Your task to perform on an android device: read, delete, or share a saved page in the chrome app Image 0: 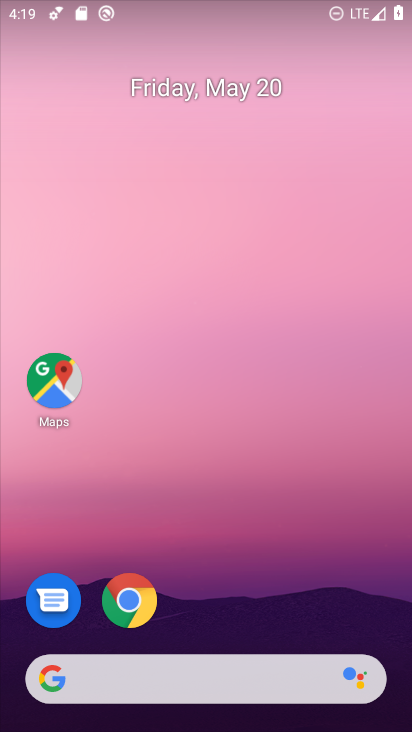
Step 0: click (126, 601)
Your task to perform on an android device: read, delete, or share a saved page in the chrome app Image 1: 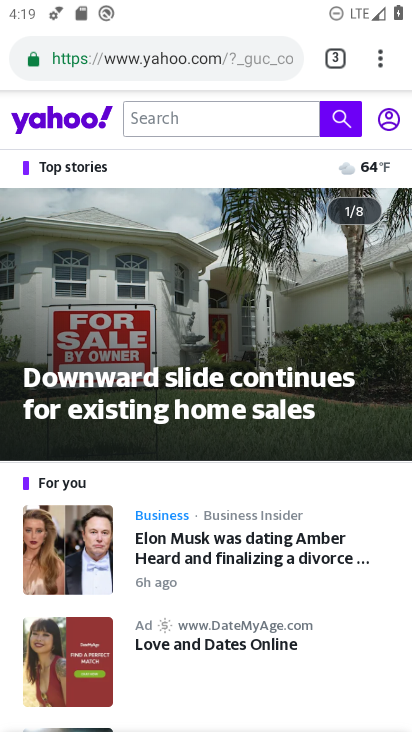
Step 1: drag from (374, 56) to (179, 393)
Your task to perform on an android device: read, delete, or share a saved page in the chrome app Image 2: 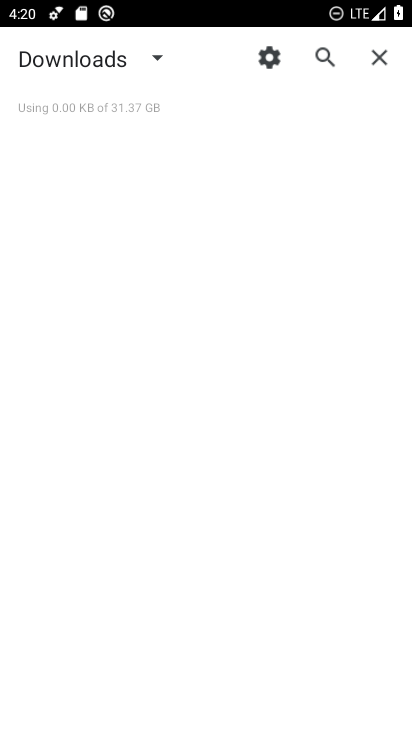
Step 2: click (150, 57)
Your task to perform on an android device: read, delete, or share a saved page in the chrome app Image 3: 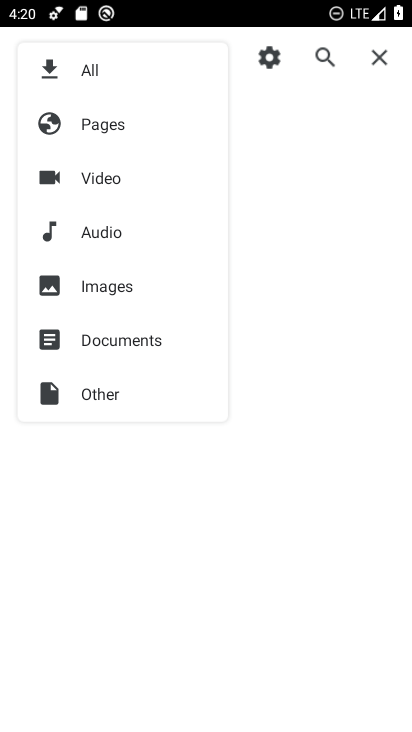
Step 3: click (105, 125)
Your task to perform on an android device: read, delete, or share a saved page in the chrome app Image 4: 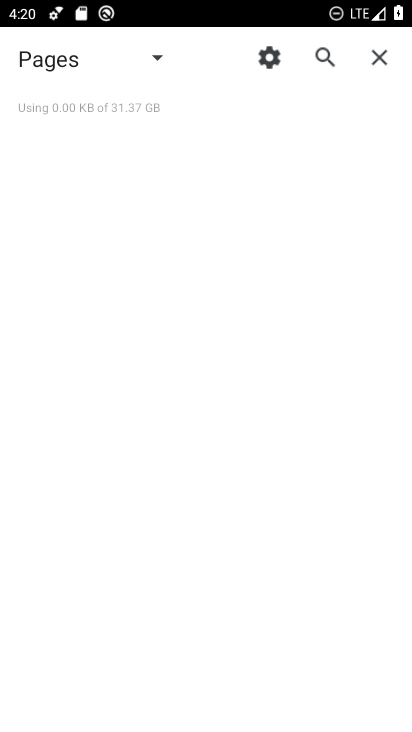
Step 4: task complete